Your task to perform on an android device: Open Google Image 0: 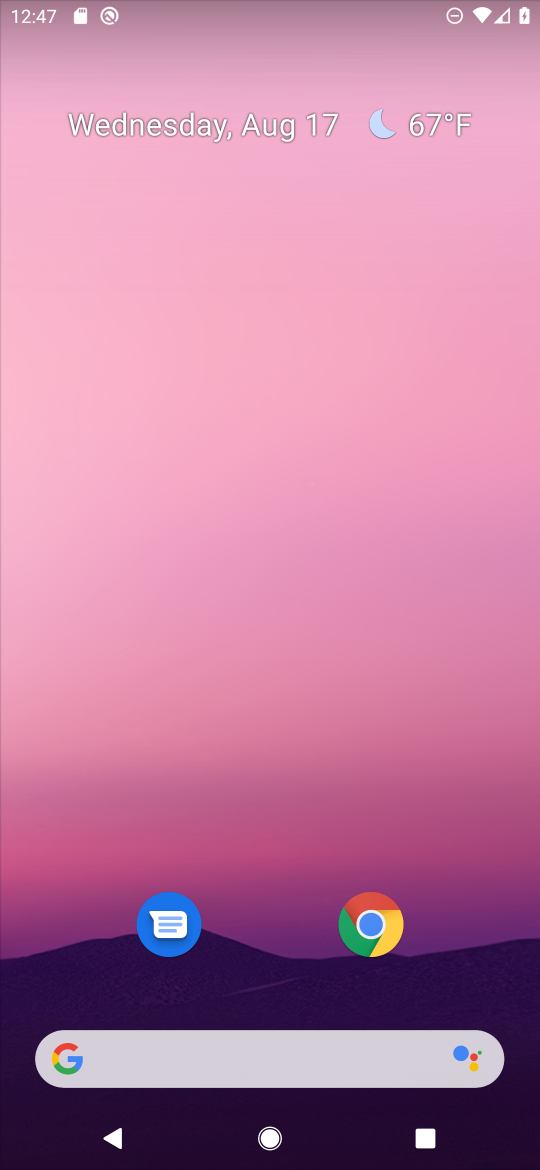
Step 0: click (173, 1042)
Your task to perform on an android device: Open Google Image 1: 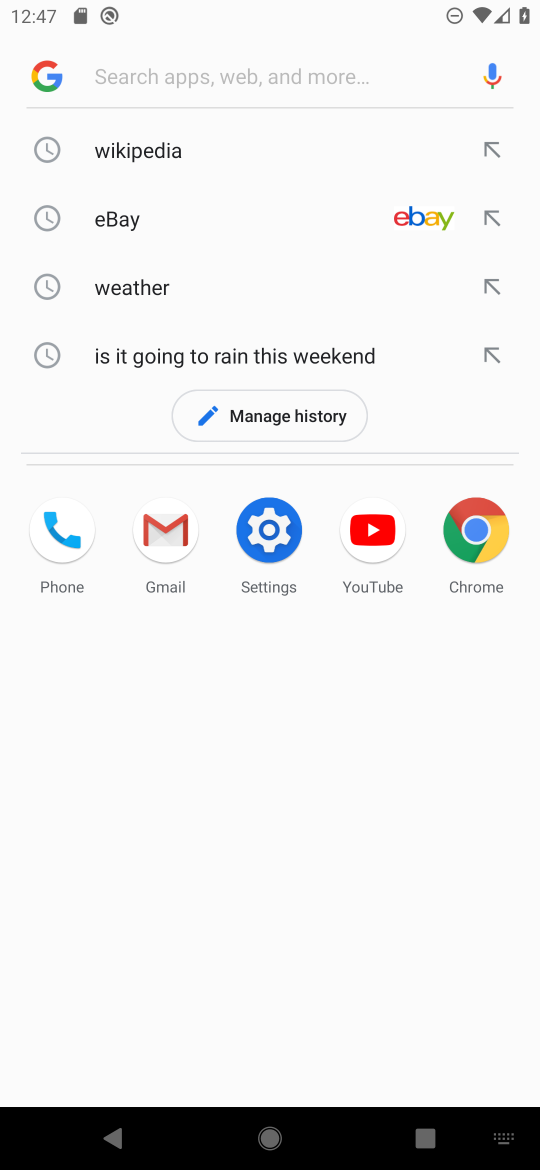
Step 1: task complete